Your task to perform on an android device: toggle airplane mode Image 0: 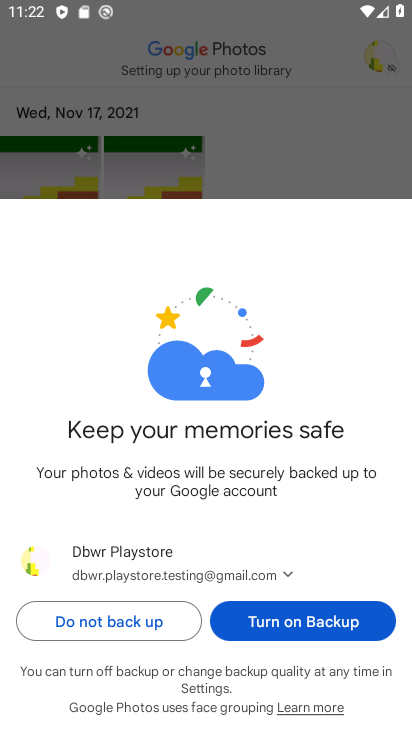
Step 0: click (285, 135)
Your task to perform on an android device: toggle airplane mode Image 1: 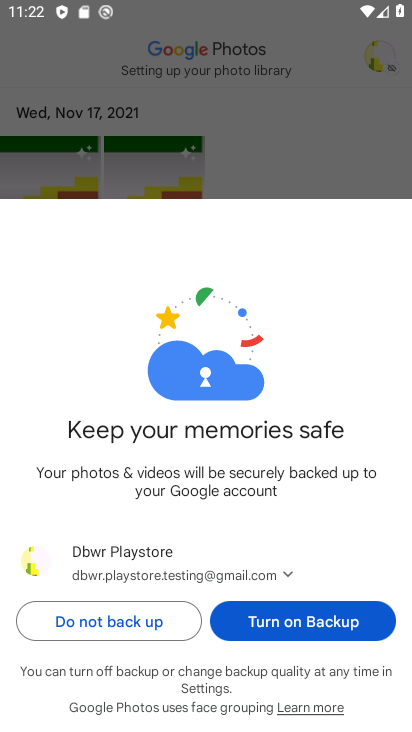
Step 1: click (286, 134)
Your task to perform on an android device: toggle airplane mode Image 2: 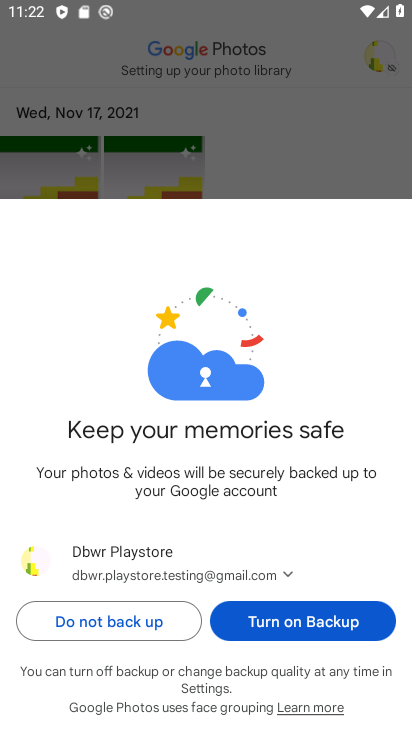
Step 2: click (286, 134)
Your task to perform on an android device: toggle airplane mode Image 3: 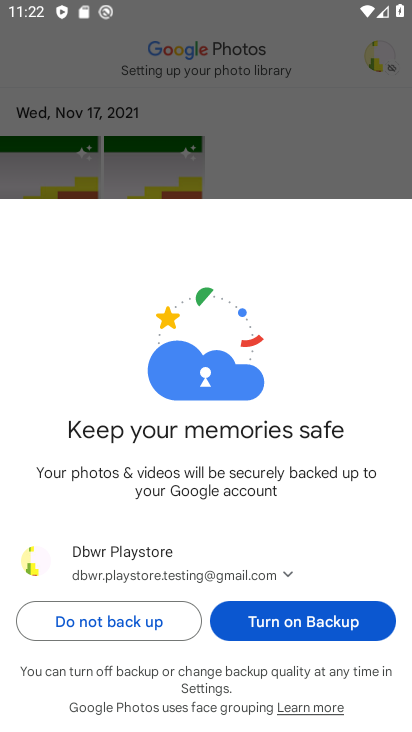
Step 3: press home button
Your task to perform on an android device: toggle airplane mode Image 4: 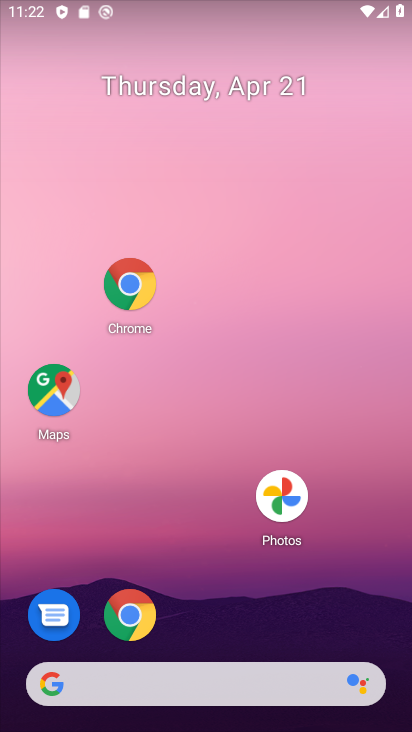
Step 4: drag from (325, 584) to (112, 60)
Your task to perform on an android device: toggle airplane mode Image 5: 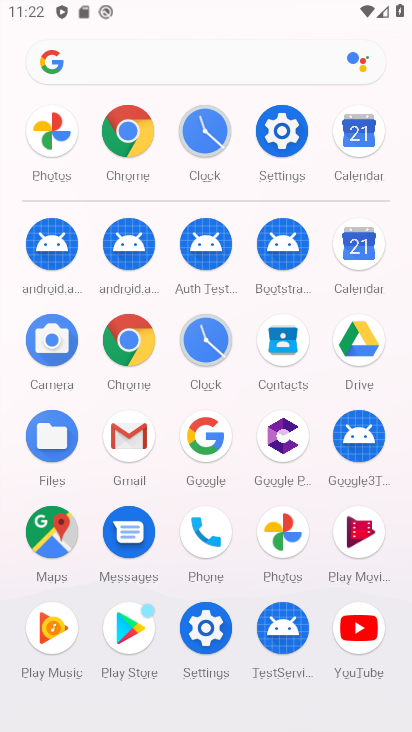
Step 5: click (271, 129)
Your task to perform on an android device: toggle airplane mode Image 6: 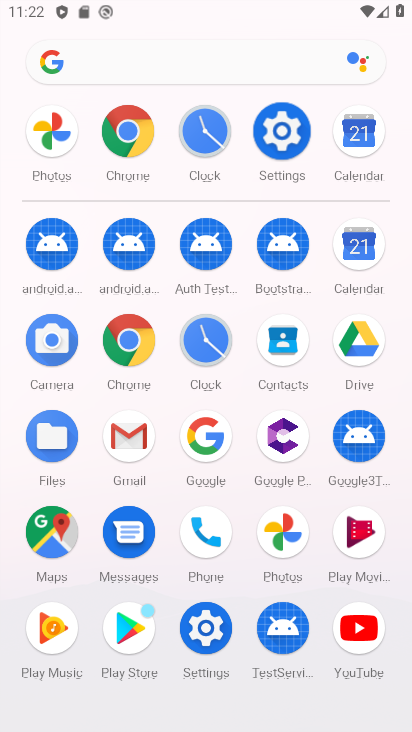
Step 6: click (271, 129)
Your task to perform on an android device: toggle airplane mode Image 7: 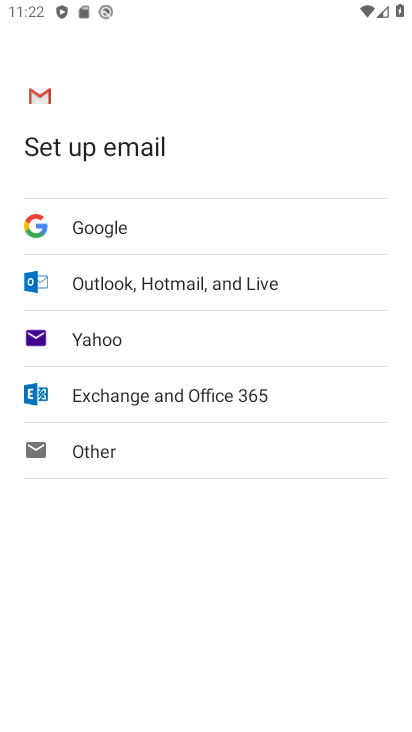
Step 7: press home button
Your task to perform on an android device: toggle airplane mode Image 8: 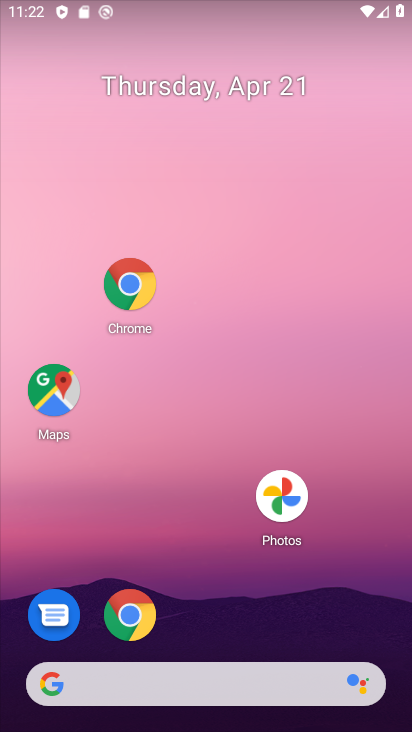
Step 8: drag from (244, 532) to (94, 119)
Your task to perform on an android device: toggle airplane mode Image 9: 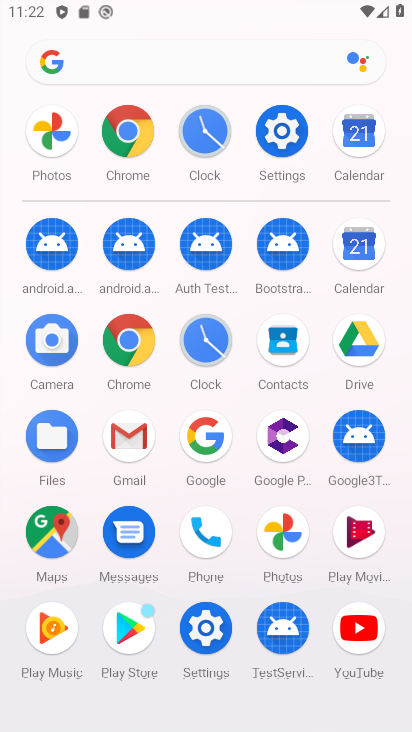
Step 9: click (277, 127)
Your task to perform on an android device: toggle airplane mode Image 10: 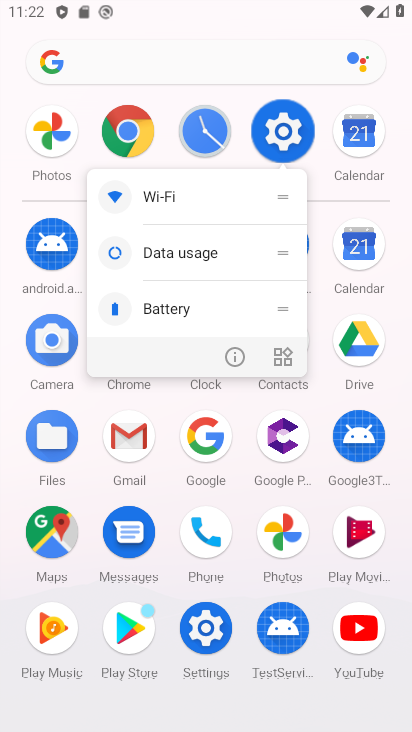
Step 10: click (277, 127)
Your task to perform on an android device: toggle airplane mode Image 11: 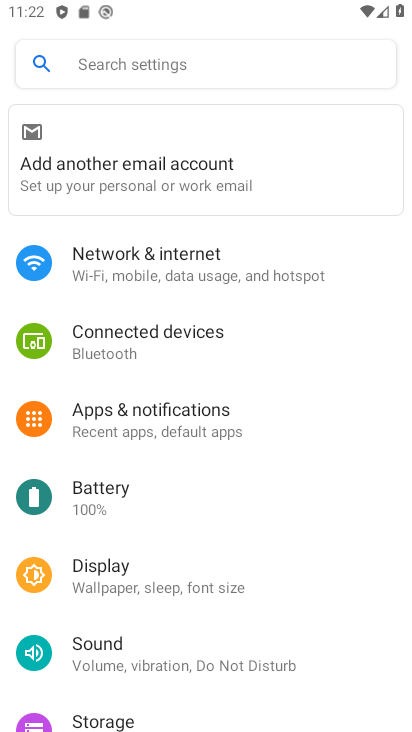
Step 11: click (150, 263)
Your task to perform on an android device: toggle airplane mode Image 12: 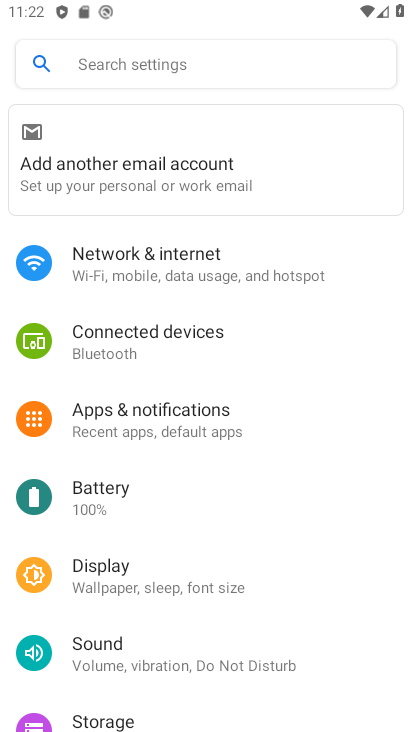
Step 12: click (150, 263)
Your task to perform on an android device: toggle airplane mode Image 13: 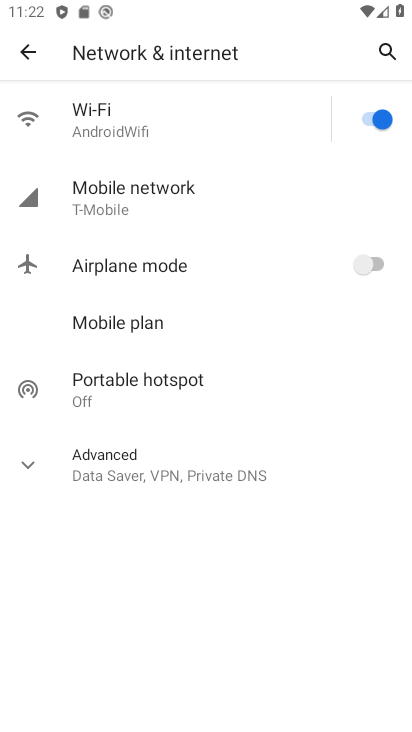
Step 13: click (366, 265)
Your task to perform on an android device: toggle airplane mode Image 14: 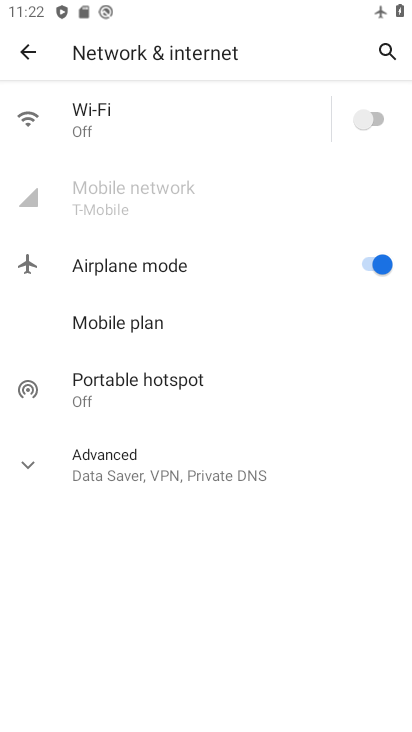
Step 14: task complete